Your task to perform on an android device: find which apps use the phone's location Image 0: 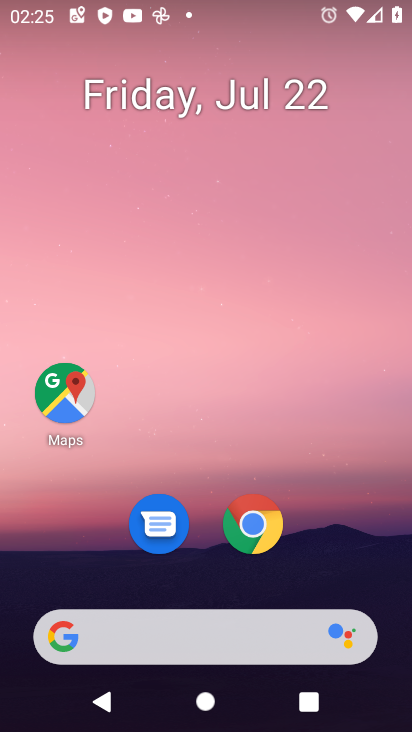
Step 0: press home button
Your task to perform on an android device: find which apps use the phone's location Image 1: 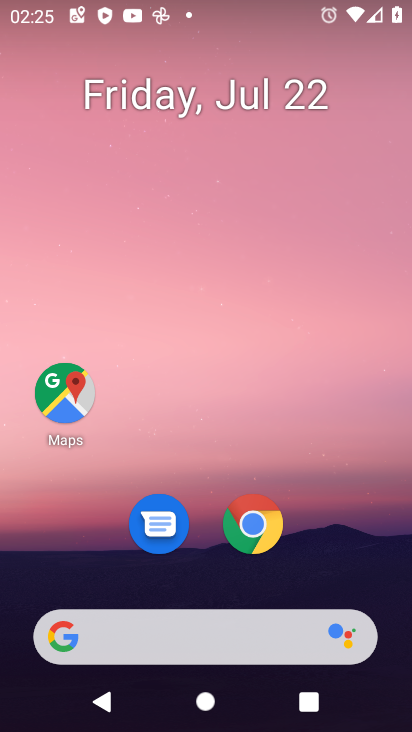
Step 1: drag from (202, 644) to (356, 165)
Your task to perform on an android device: find which apps use the phone's location Image 2: 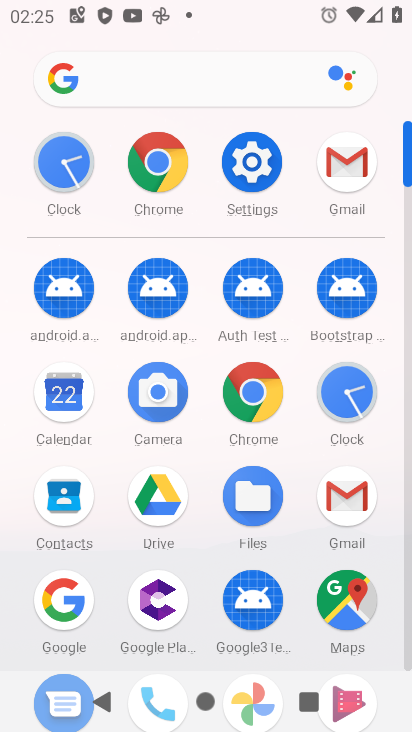
Step 2: click (250, 169)
Your task to perform on an android device: find which apps use the phone's location Image 3: 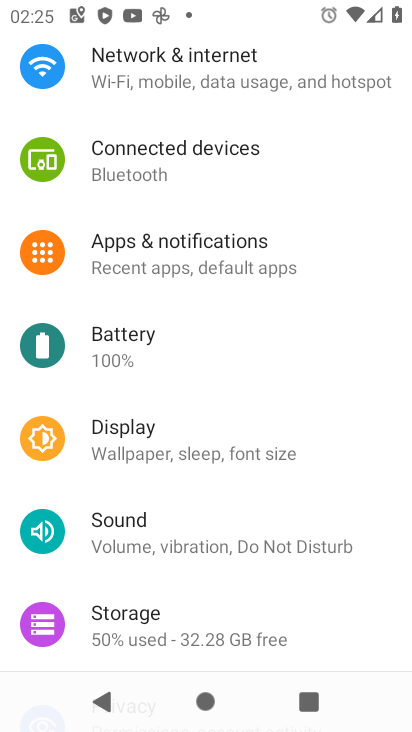
Step 3: drag from (207, 690) to (364, 144)
Your task to perform on an android device: find which apps use the phone's location Image 4: 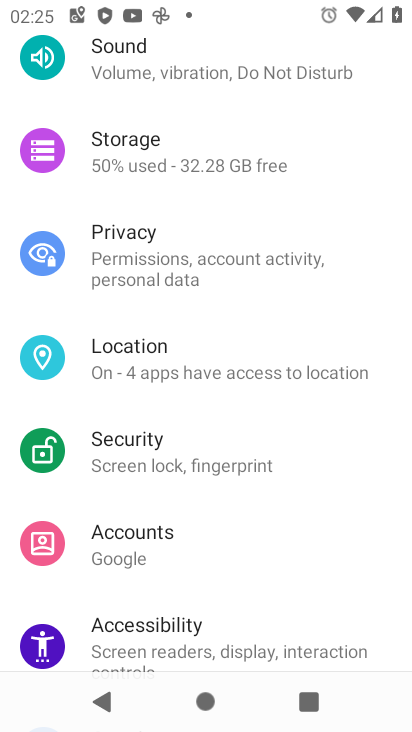
Step 4: click (172, 364)
Your task to perform on an android device: find which apps use the phone's location Image 5: 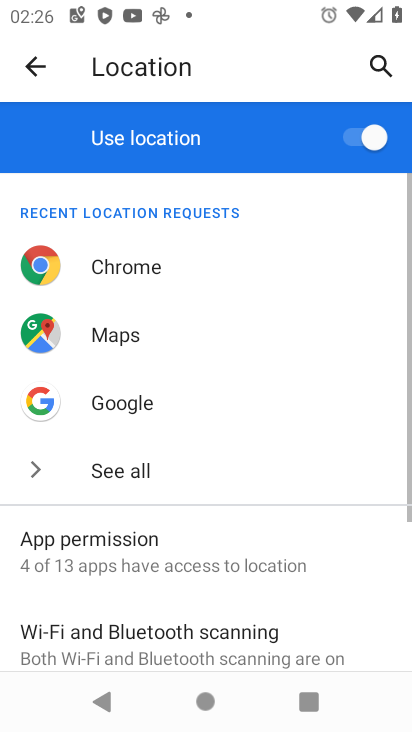
Step 5: click (135, 550)
Your task to perform on an android device: find which apps use the phone's location Image 6: 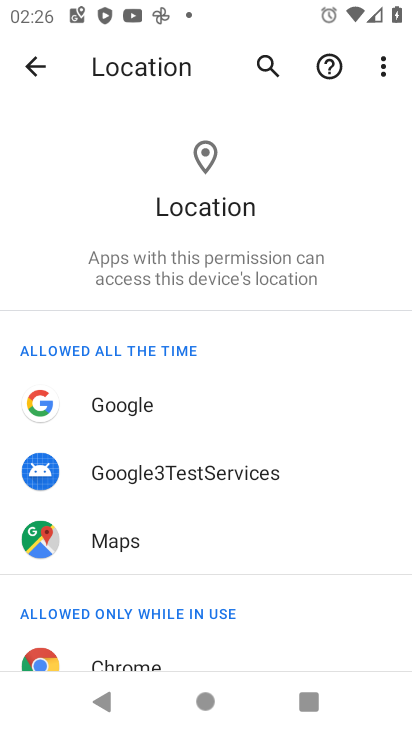
Step 6: drag from (197, 544) to (357, 63)
Your task to perform on an android device: find which apps use the phone's location Image 7: 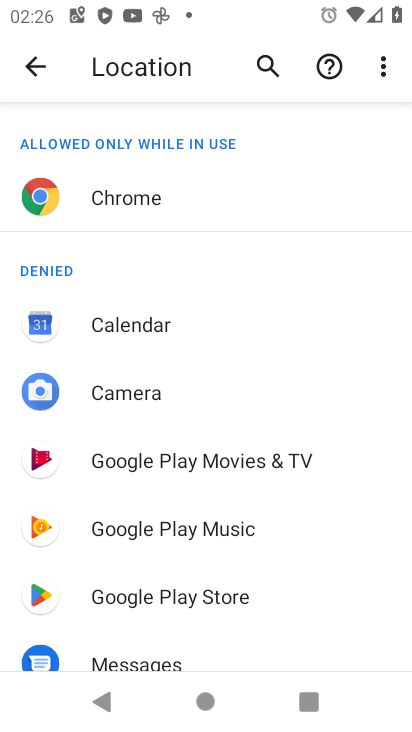
Step 7: drag from (215, 562) to (367, 95)
Your task to perform on an android device: find which apps use the phone's location Image 8: 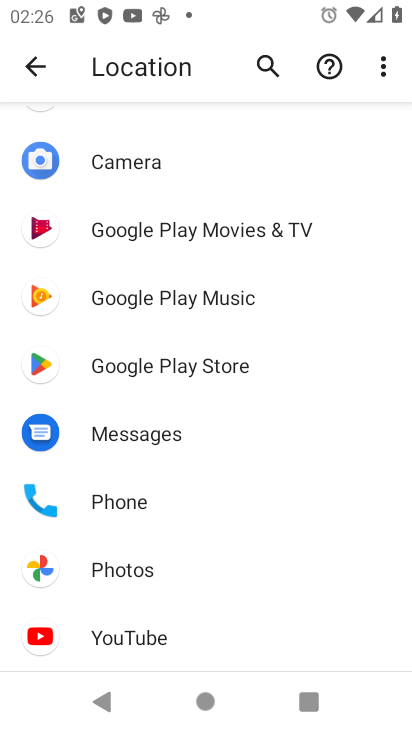
Step 8: click (127, 502)
Your task to perform on an android device: find which apps use the phone's location Image 9: 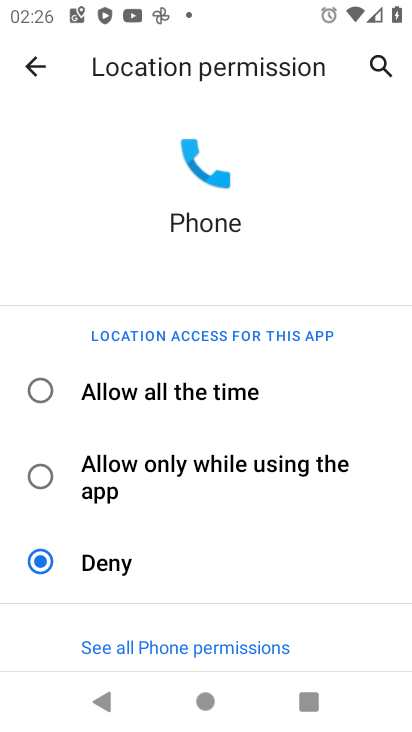
Step 9: task complete